Your task to perform on an android device: turn off priority inbox in the gmail app Image 0: 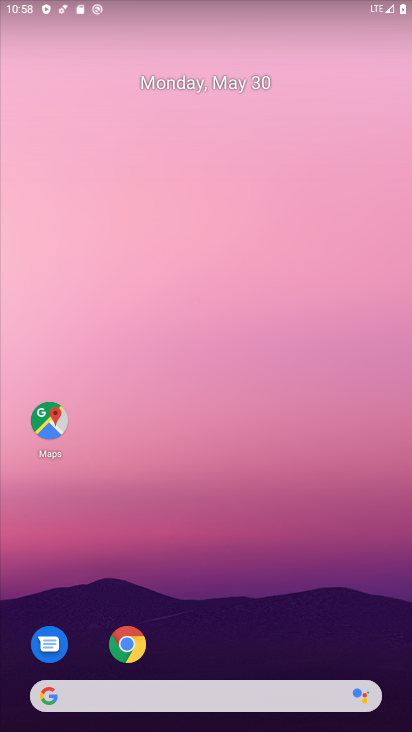
Step 0: drag from (315, 577) to (312, 45)
Your task to perform on an android device: turn off priority inbox in the gmail app Image 1: 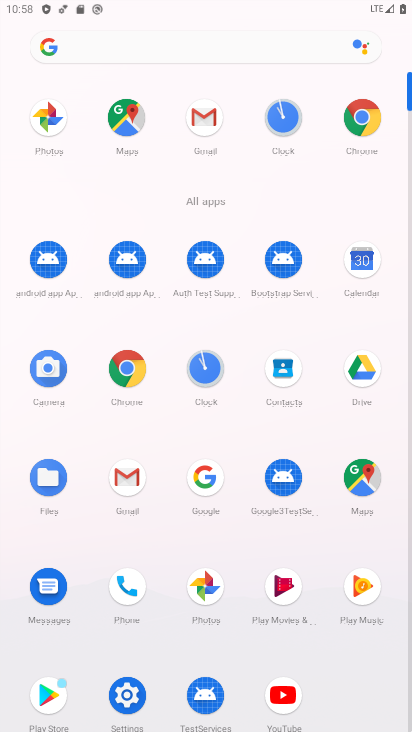
Step 1: click (148, 506)
Your task to perform on an android device: turn off priority inbox in the gmail app Image 2: 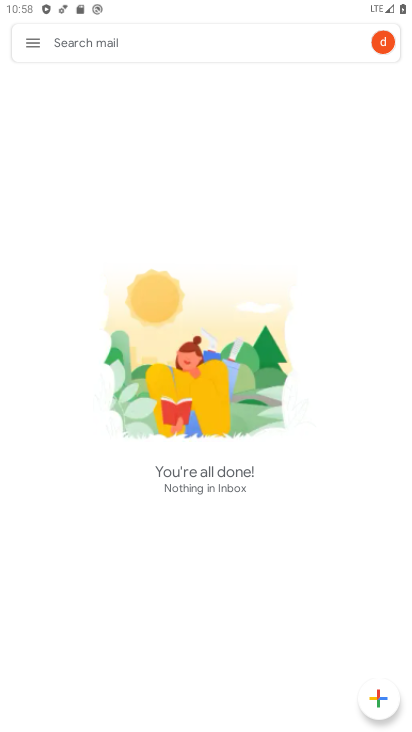
Step 2: click (41, 43)
Your task to perform on an android device: turn off priority inbox in the gmail app Image 3: 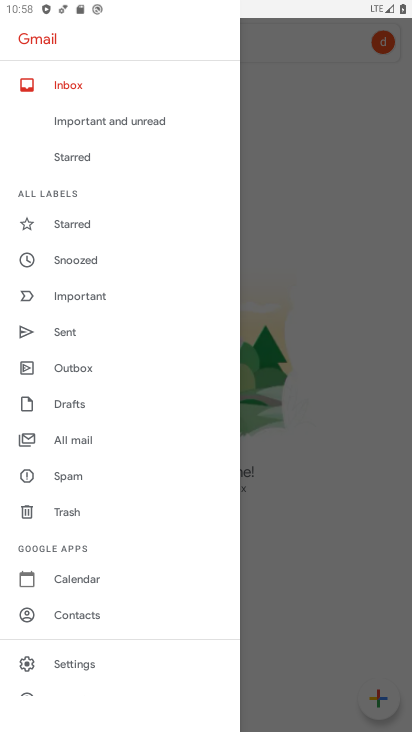
Step 3: click (83, 674)
Your task to perform on an android device: turn off priority inbox in the gmail app Image 4: 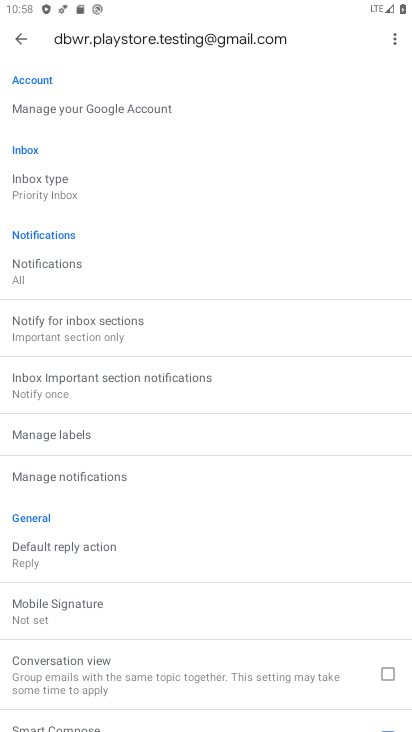
Step 4: click (59, 183)
Your task to perform on an android device: turn off priority inbox in the gmail app Image 5: 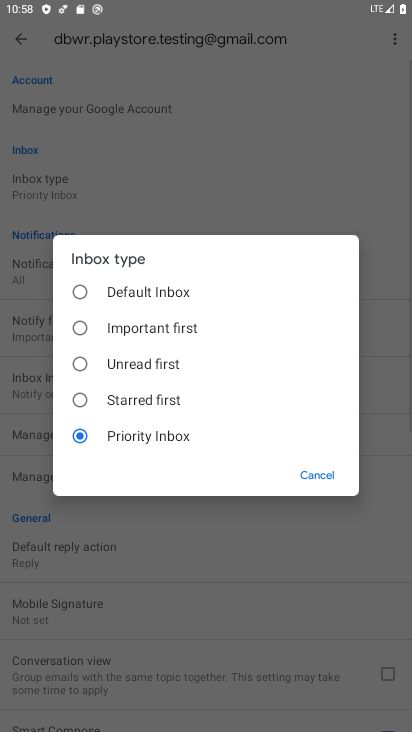
Step 5: click (109, 290)
Your task to perform on an android device: turn off priority inbox in the gmail app Image 6: 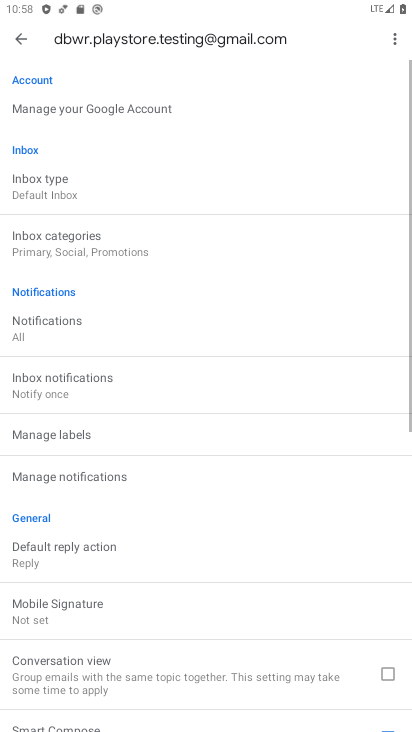
Step 6: task complete